Your task to perform on an android device: Go to Android settings Image 0: 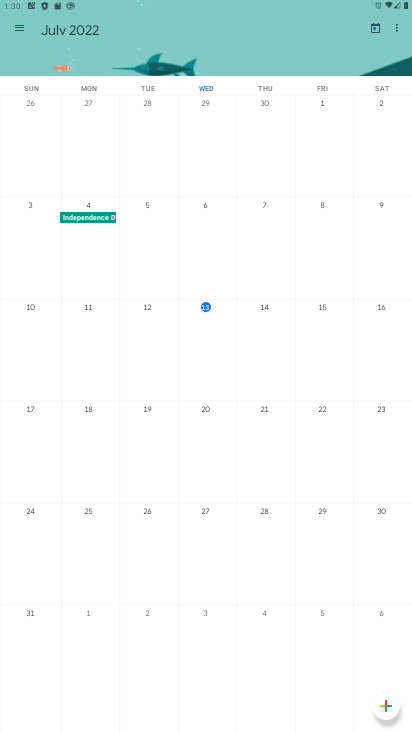
Step 0: press home button
Your task to perform on an android device: Go to Android settings Image 1: 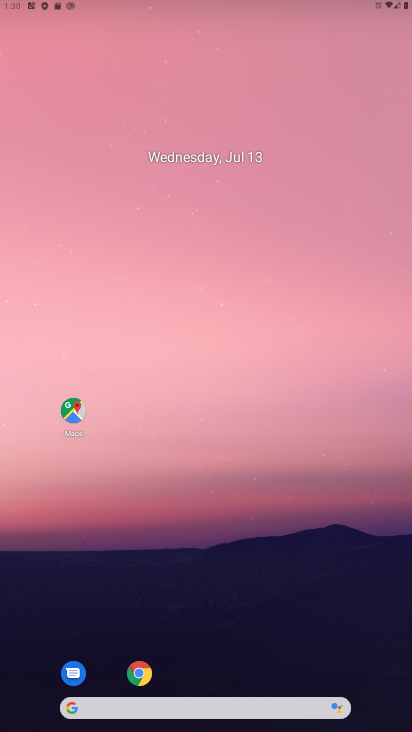
Step 1: drag from (220, 649) to (219, 181)
Your task to perform on an android device: Go to Android settings Image 2: 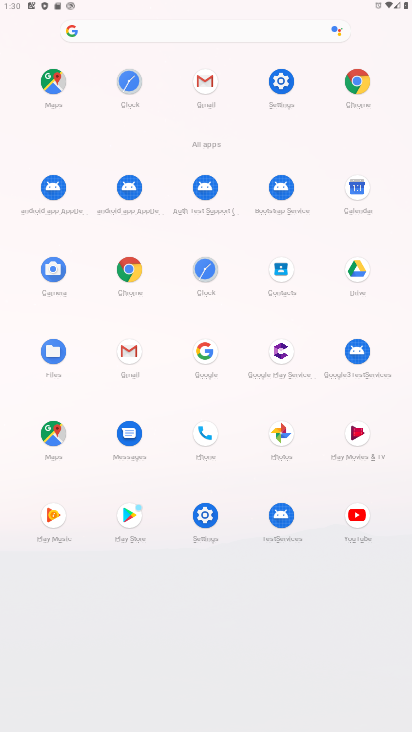
Step 2: click (274, 81)
Your task to perform on an android device: Go to Android settings Image 3: 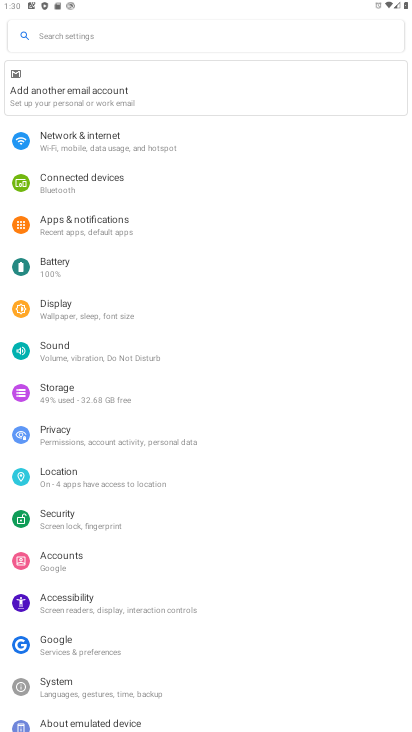
Step 3: task complete